Your task to perform on an android device: Open Google Chrome Image 0: 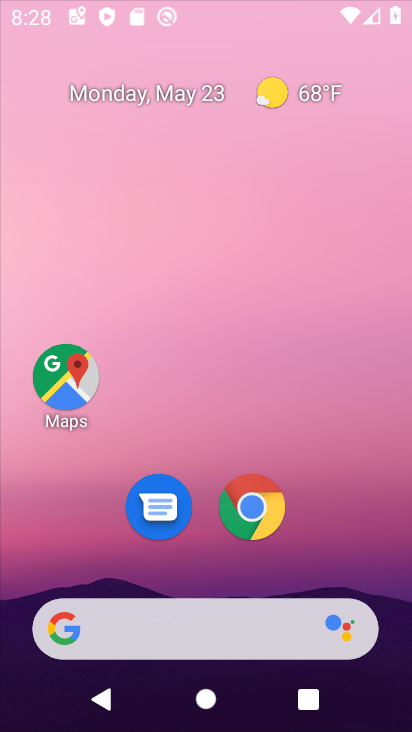
Step 0: click (406, 574)
Your task to perform on an android device: Open Google Chrome Image 1: 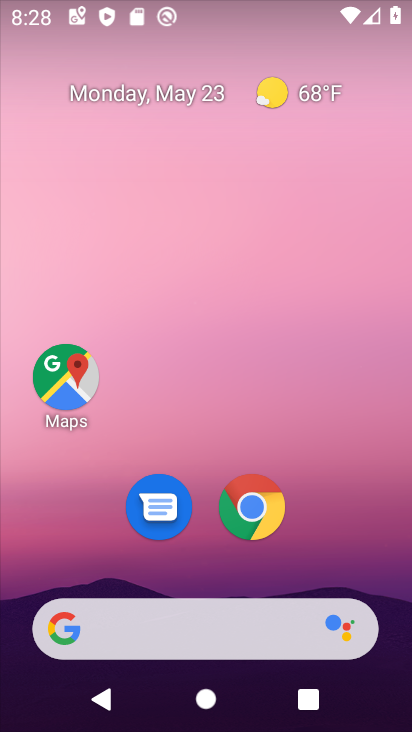
Step 1: click (253, 524)
Your task to perform on an android device: Open Google Chrome Image 2: 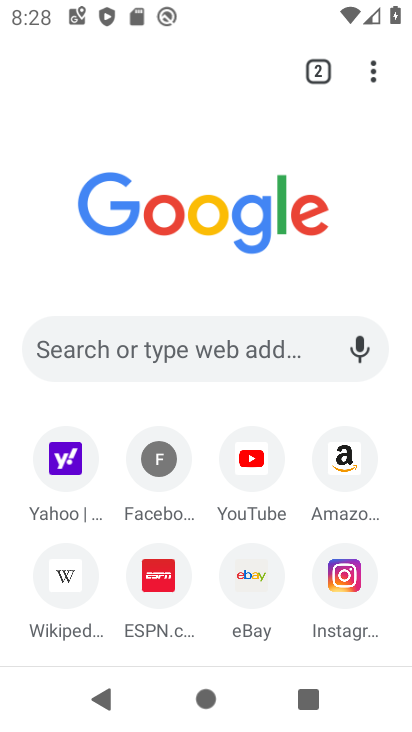
Step 2: task complete